Your task to perform on an android device: Open wifi settings Image 0: 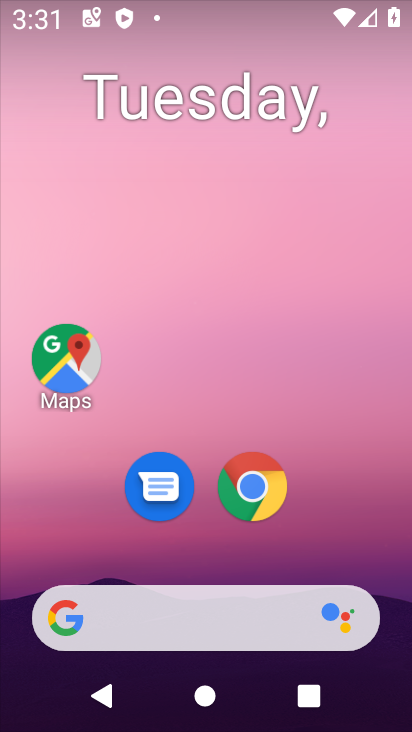
Step 0: drag from (113, 16) to (189, 558)
Your task to perform on an android device: Open wifi settings Image 1: 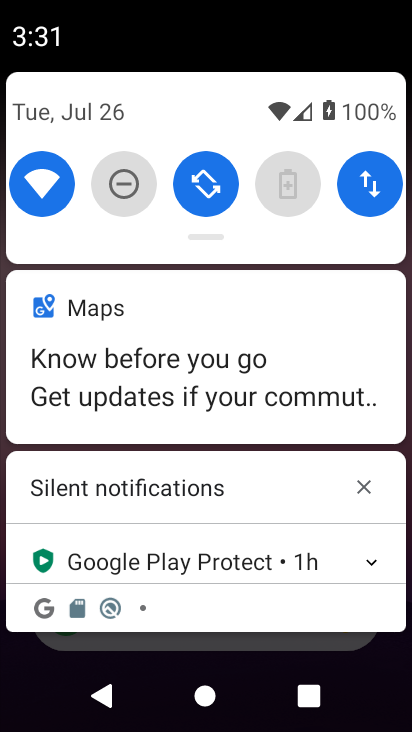
Step 1: click (53, 186)
Your task to perform on an android device: Open wifi settings Image 2: 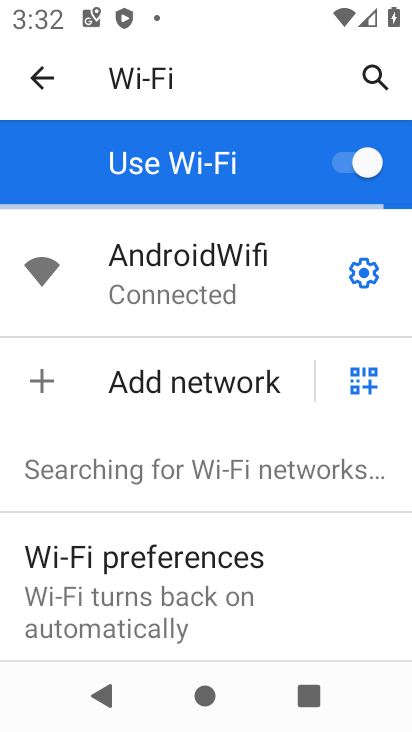
Step 2: task complete